Your task to perform on an android device: Open Chrome and go to settings Image 0: 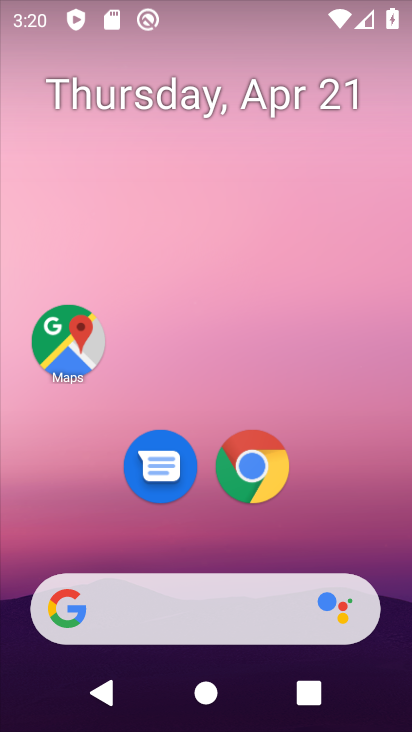
Step 0: click (241, 468)
Your task to perform on an android device: Open Chrome and go to settings Image 1: 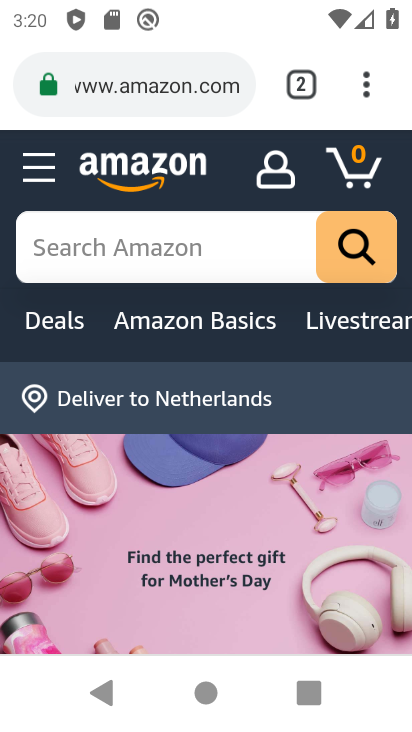
Step 1: click (370, 88)
Your task to perform on an android device: Open Chrome and go to settings Image 2: 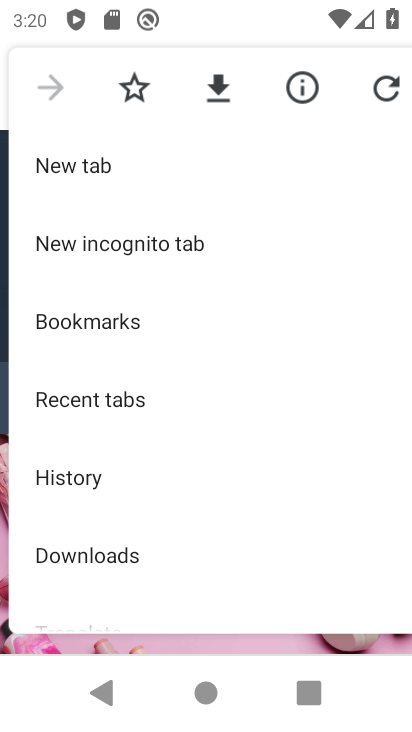
Step 2: drag from (174, 552) to (211, 217)
Your task to perform on an android device: Open Chrome and go to settings Image 3: 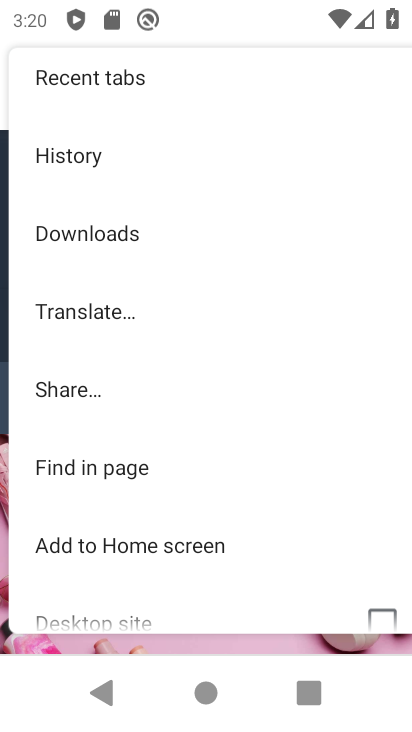
Step 3: drag from (208, 510) to (241, 248)
Your task to perform on an android device: Open Chrome and go to settings Image 4: 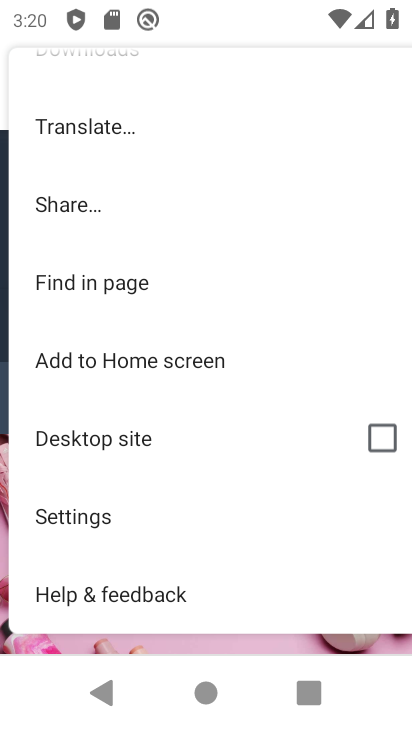
Step 4: click (118, 508)
Your task to perform on an android device: Open Chrome and go to settings Image 5: 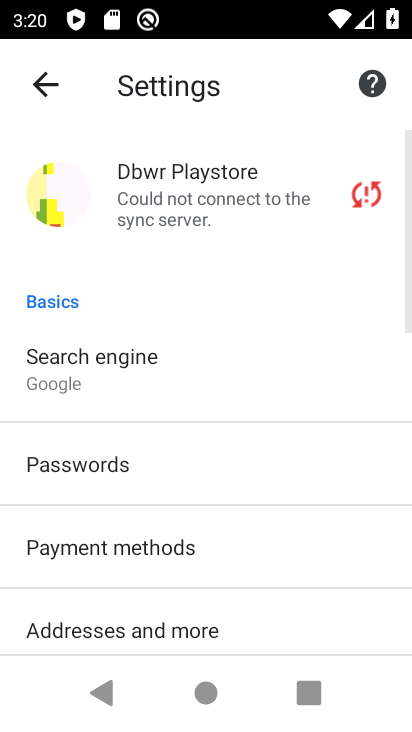
Step 5: task complete